Your task to perform on an android device: Search for hotels in Atlanta Image 0: 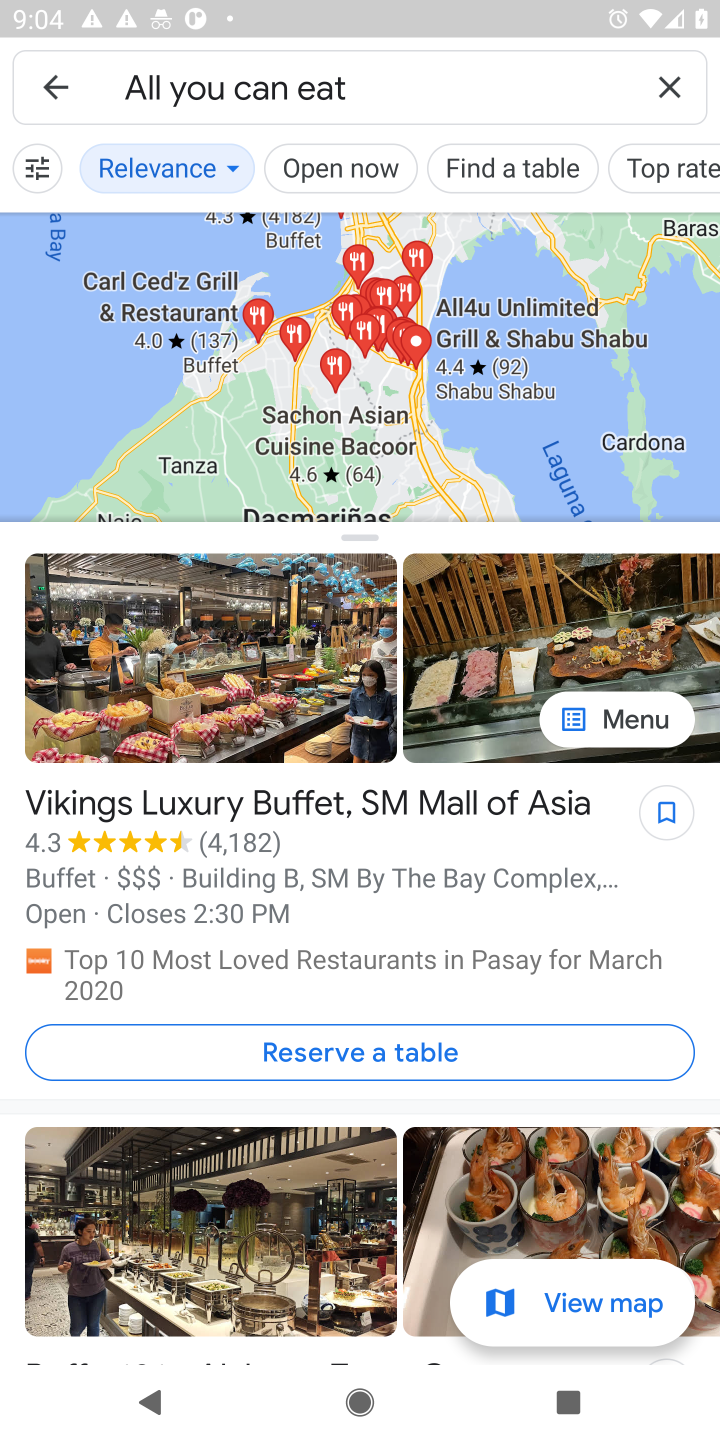
Step 0: press home button
Your task to perform on an android device: Search for hotels in Atlanta Image 1: 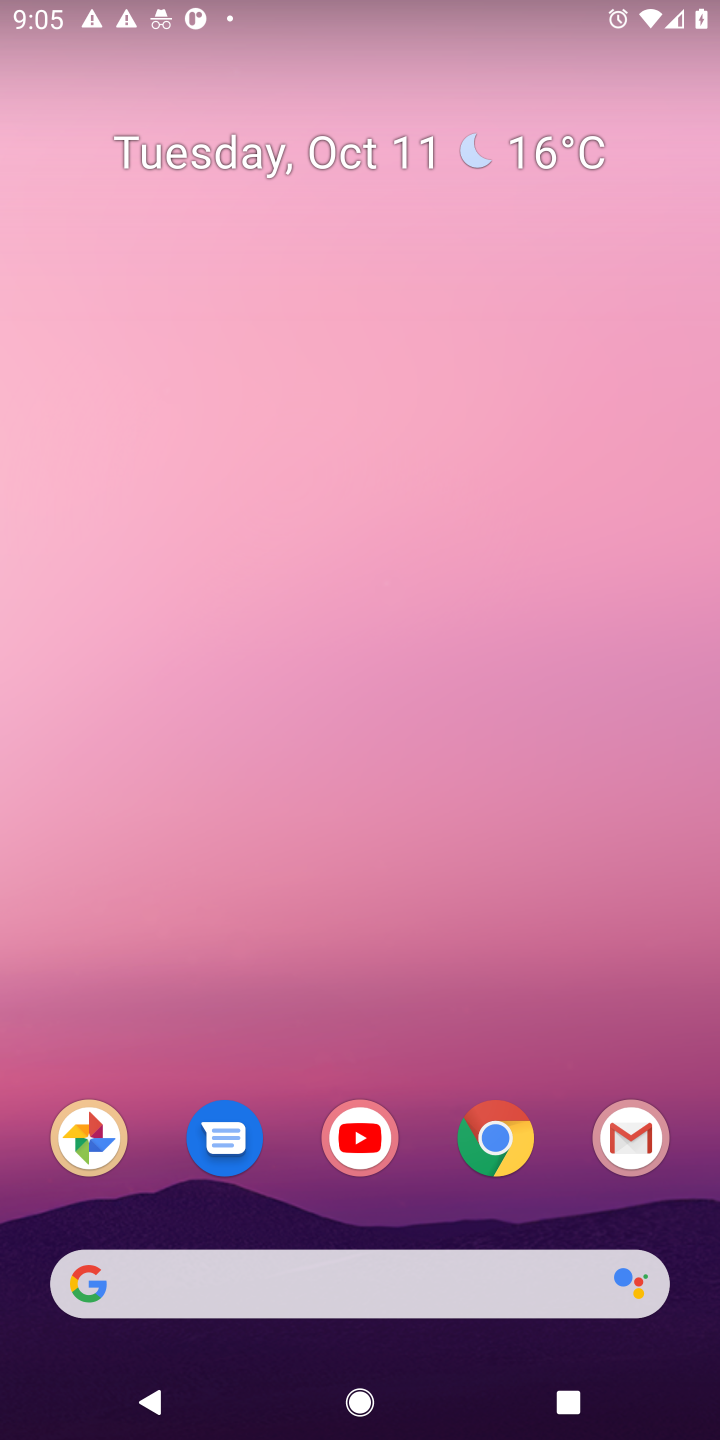
Step 1: click (359, 1274)
Your task to perform on an android device: Search for hotels in Atlanta Image 2: 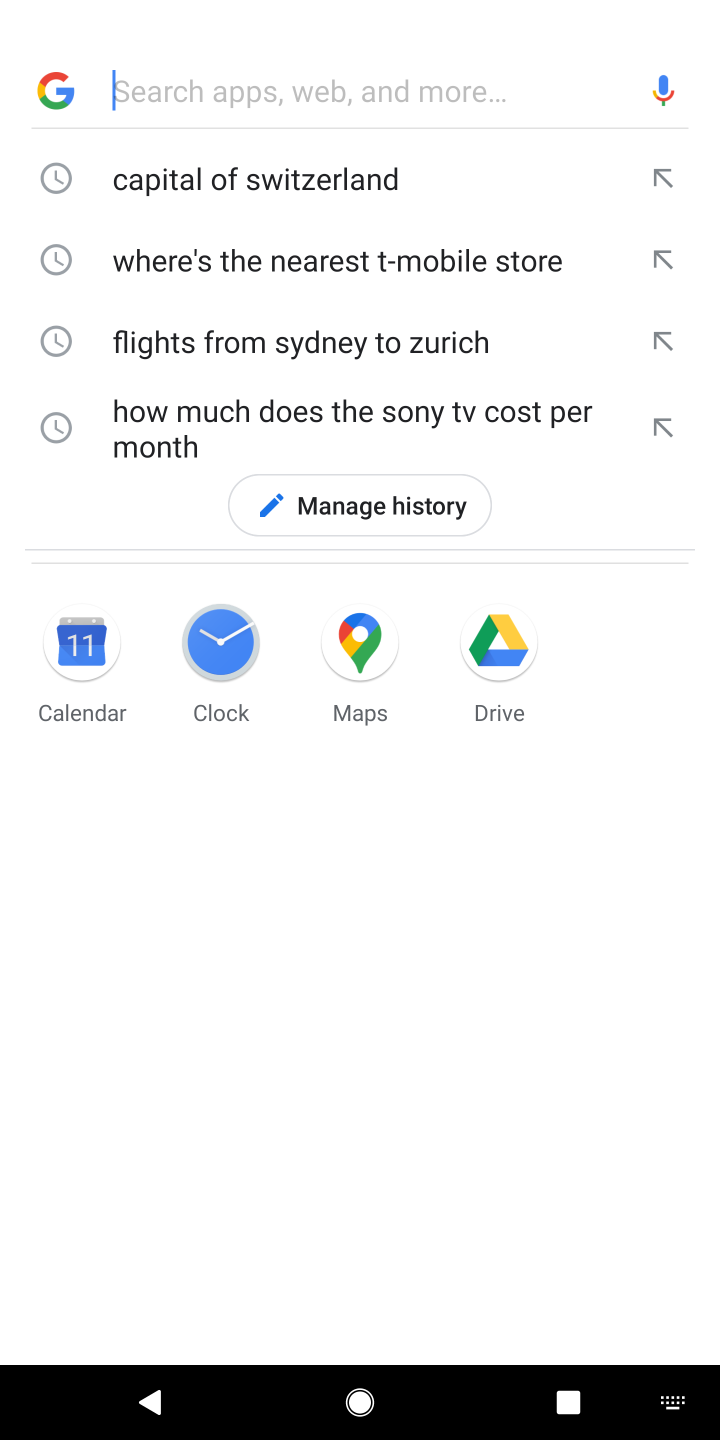
Step 2: type "hotels in atlanta"
Your task to perform on an android device: Search for hotels in Atlanta Image 3: 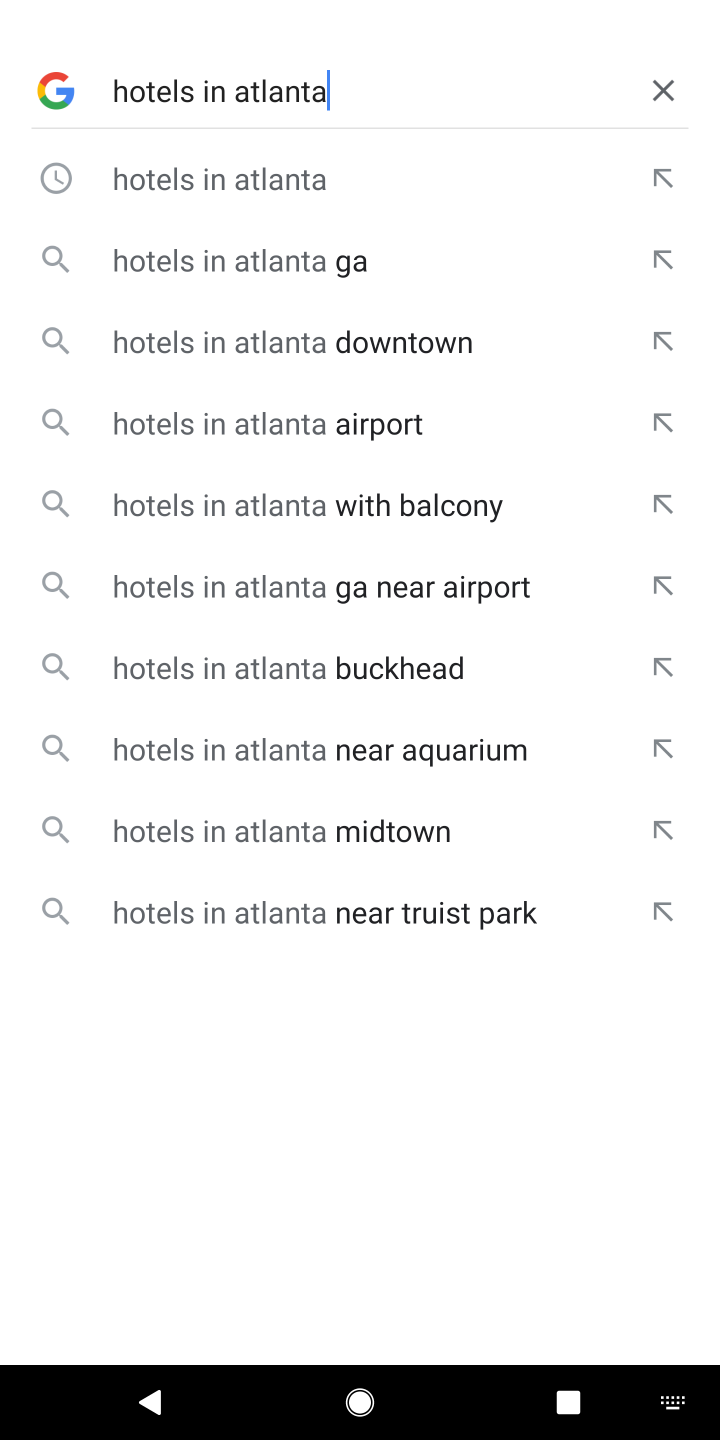
Step 3: click (247, 179)
Your task to perform on an android device: Search for hotels in Atlanta Image 4: 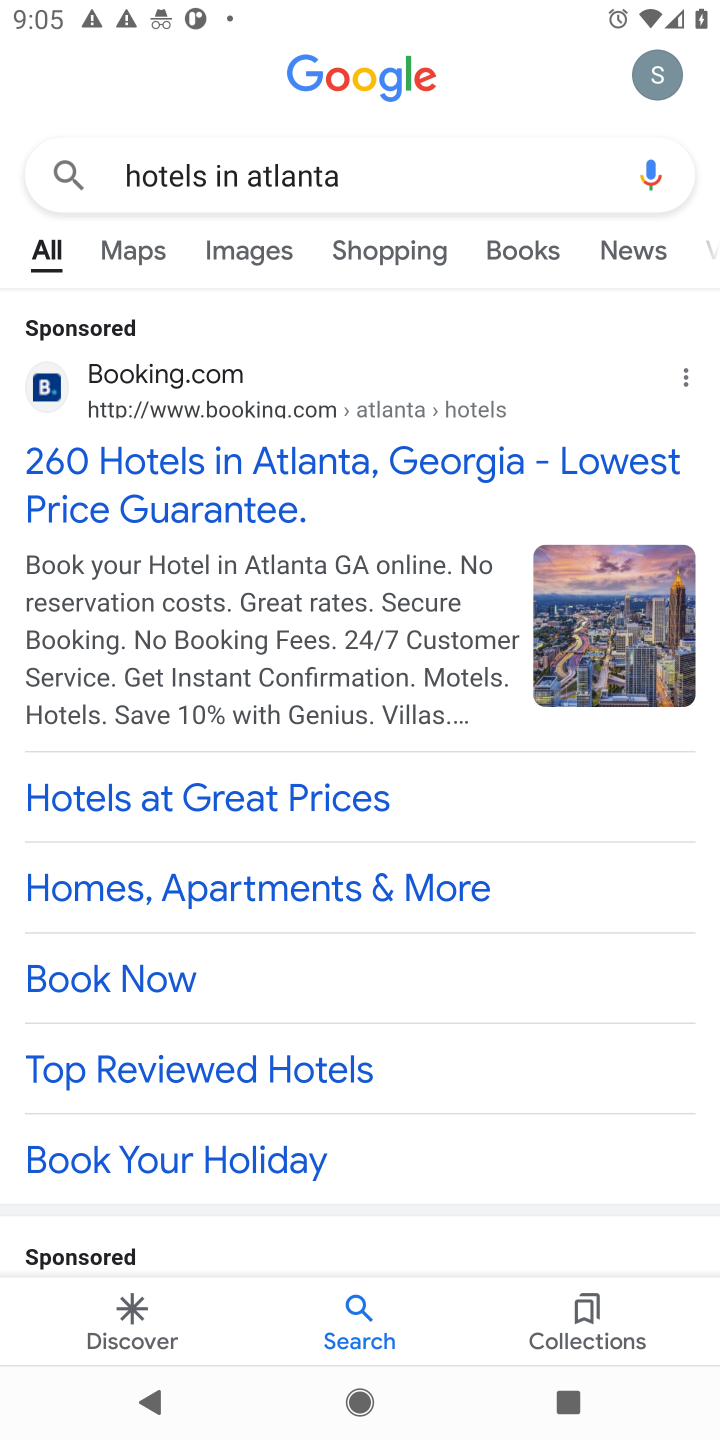
Step 4: click (169, 459)
Your task to perform on an android device: Search for hotels in Atlanta Image 5: 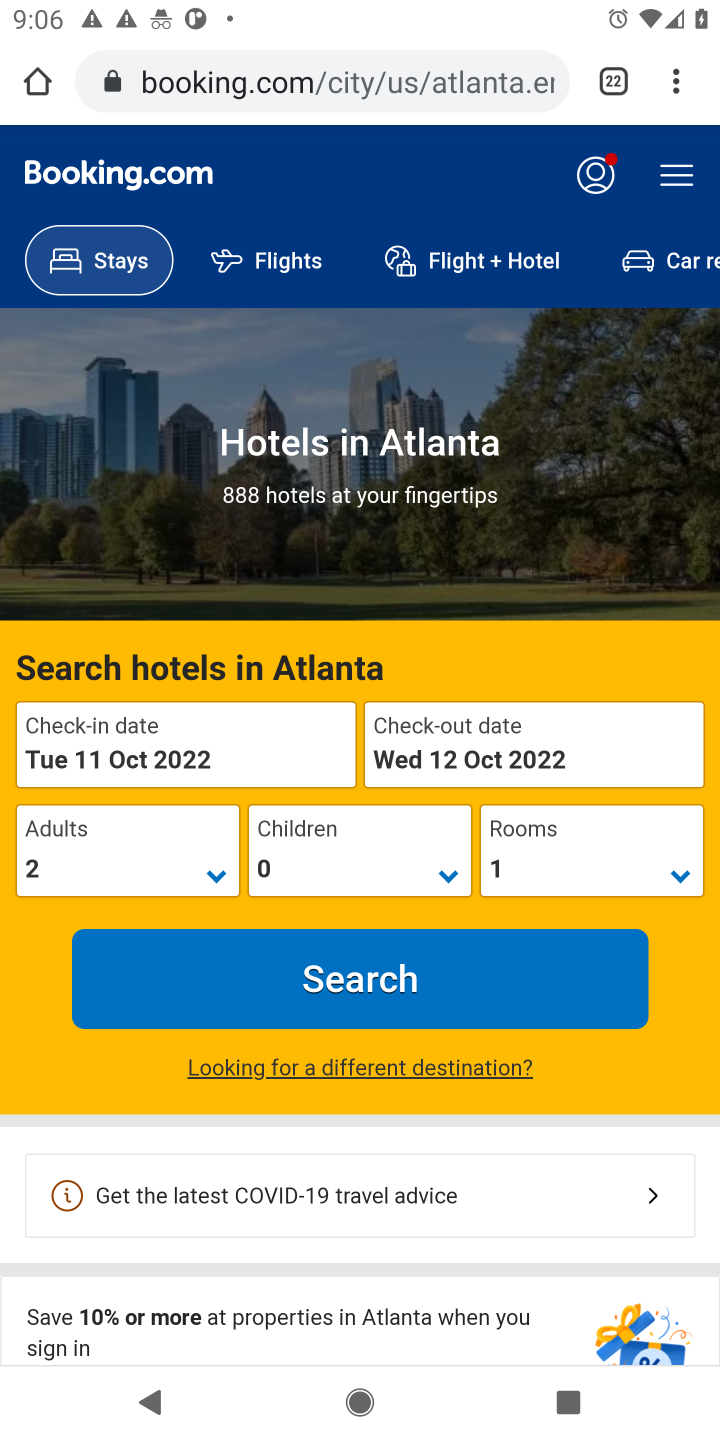
Step 5: click (308, 998)
Your task to perform on an android device: Search for hotels in Atlanta Image 6: 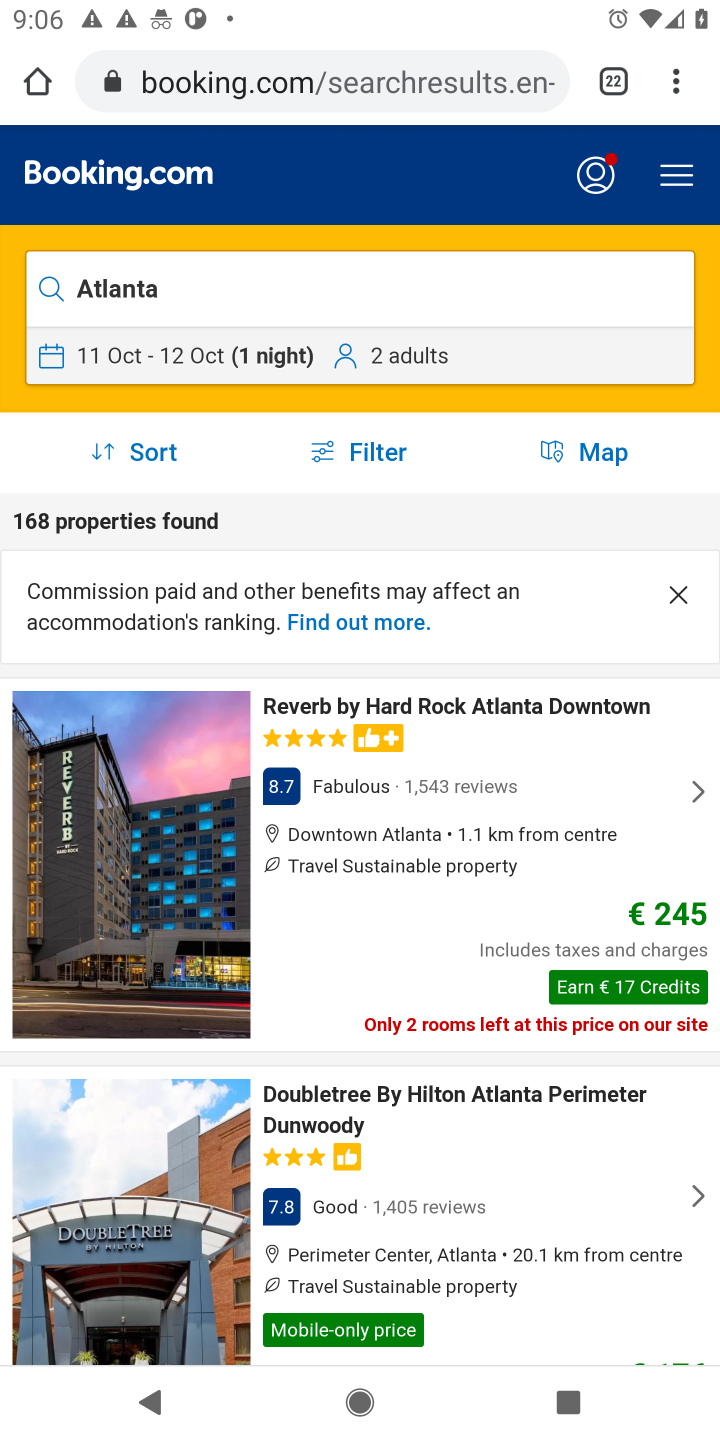
Step 6: task complete